Your task to perform on an android device: Open Chrome and go to the settings page Image 0: 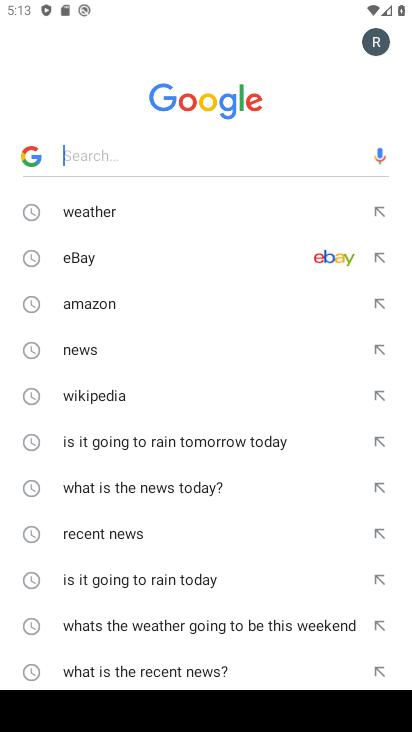
Step 0: press home button
Your task to perform on an android device: Open Chrome and go to the settings page Image 1: 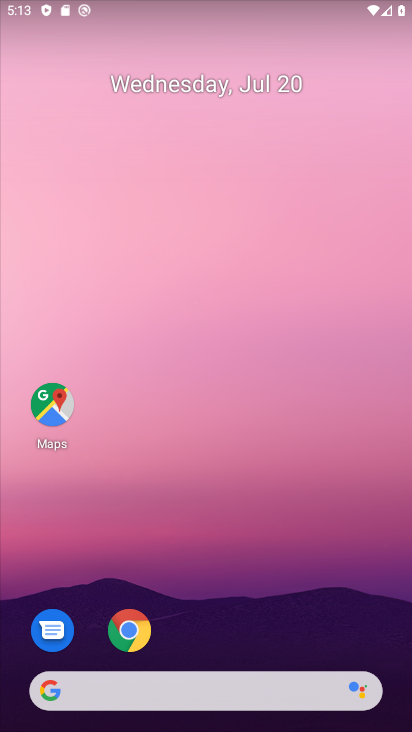
Step 1: drag from (315, 690) to (309, 108)
Your task to perform on an android device: Open Chrome and go to the settings page Image 2: 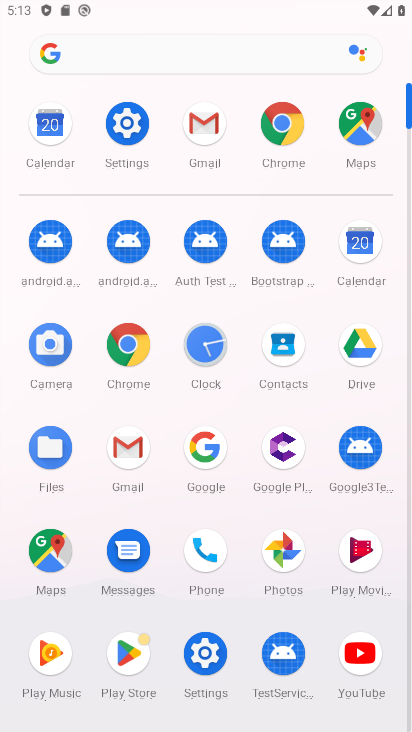
Step 2: click (134, 127)
Your task to perform on an android device: Open Chrome and go to the settings page Image 3: 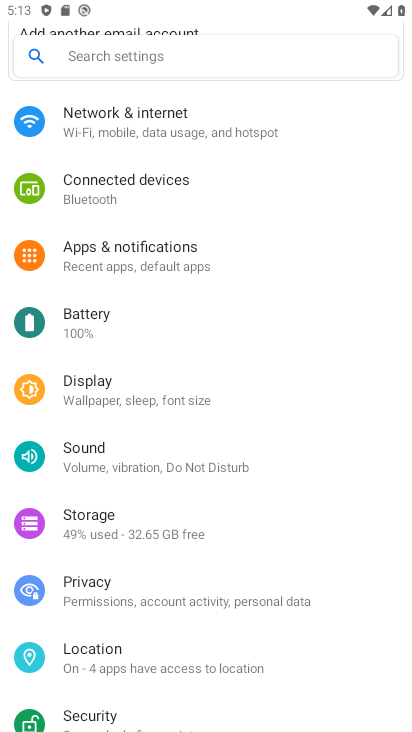
Step 3: press home button
Your task to perform on an android device: Open Chrome and go to the settings page Image 4: 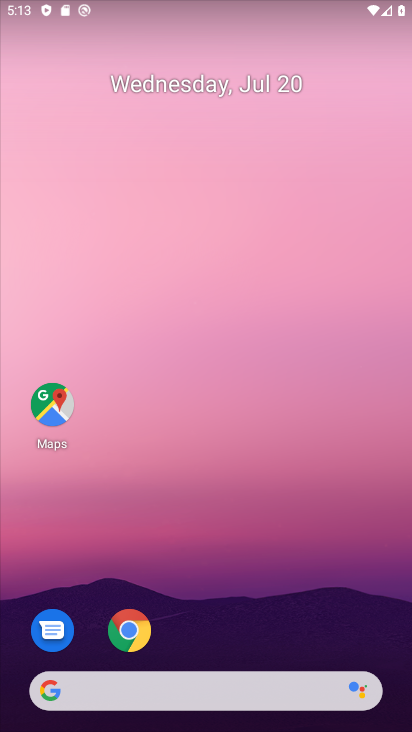
Step 4: drag from (292, 686) to (368, 4)
Your task to perform on an android device: Open Chrome and go to the settings page Image 5: 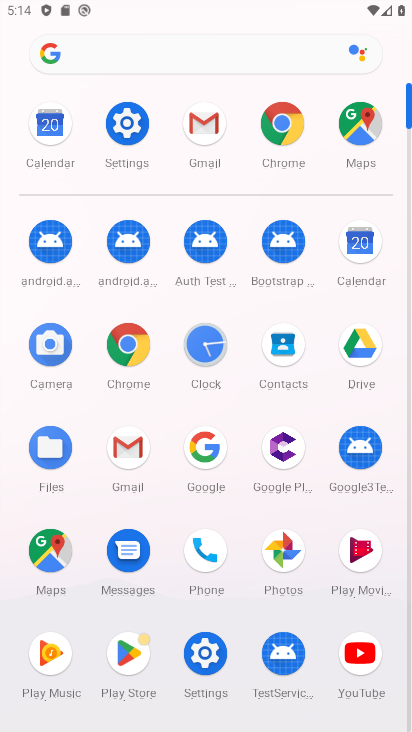
Step 5: click (129, 343)
Your task to perform on an android device: Open Chrome and go to the settings page Image 6: 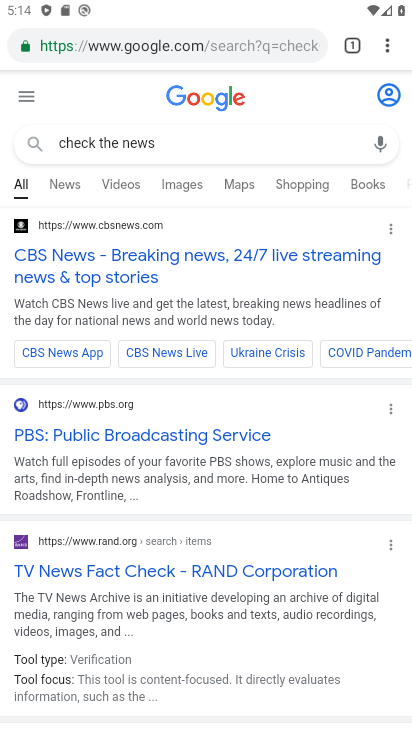
Step 6: task complete